Your task to perform on an android device: all mails in gmail Image 0: 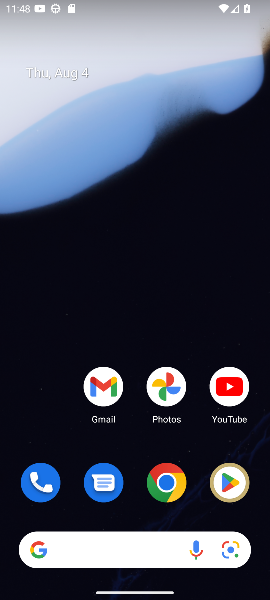
Step 0: drag from (132, 449) to (132, 140)
Your task to perform on an android device: all mails in gmail Image 1: 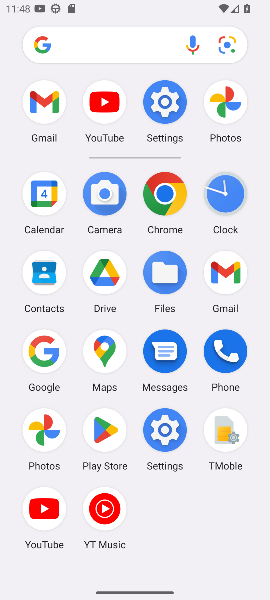
Step 1: click (55, 105)
Your task to perform on an android device: all mails in gmail Image 2: 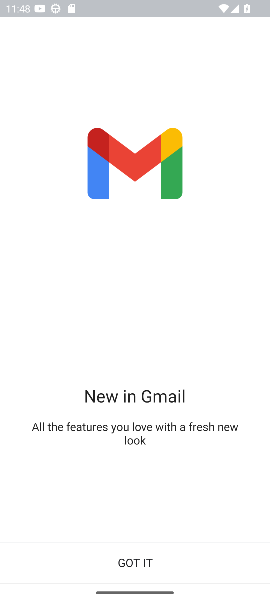
Step 2: click (174, 556)
Your task to perform on an android device: all mails in gmail Image 3: 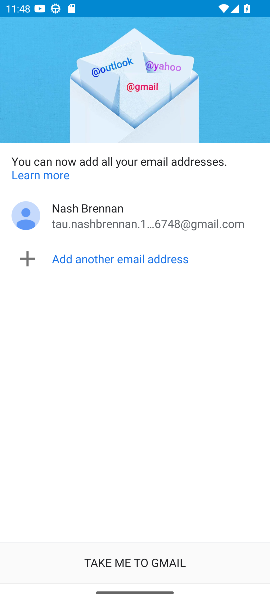
Step 3: click (189, 556)
Your task to perform on an android device: all mails in gmail Image 4: 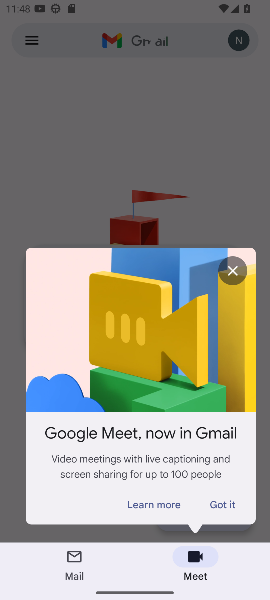
Step 4: click (220, 503)
Your task to perform on an android device: all mails in gmail Image 5: 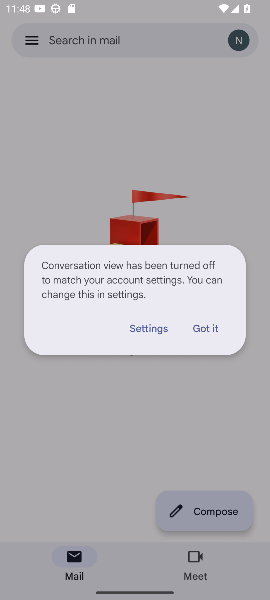
Step 5: click (208, 332)
Your task to perform on an android device: all mails in gmail Image 6: 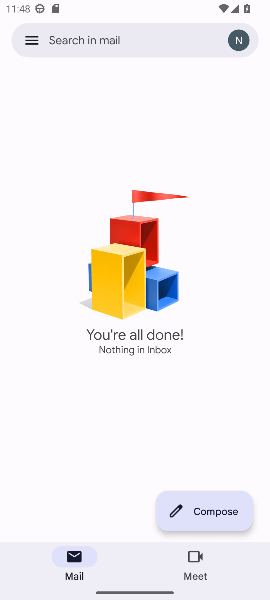
Step 6: click (35, 44)
Your task to perform on an android device: all mails in gmail Image 7: 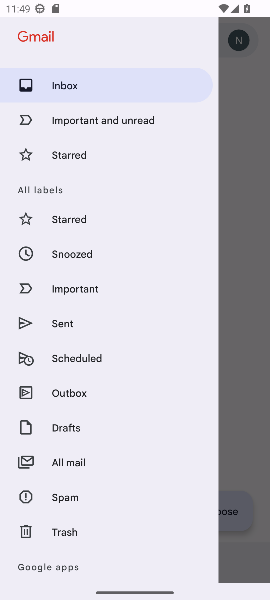
Step 7: click (110, 464)
Your task to perform on an android device: all mails in gmail Image 8: 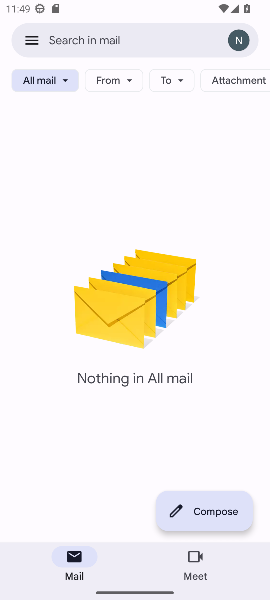
Step 8: task complete